Your task to perform on an android device: Search for a runner rug on Crate & Barrel Image 0: 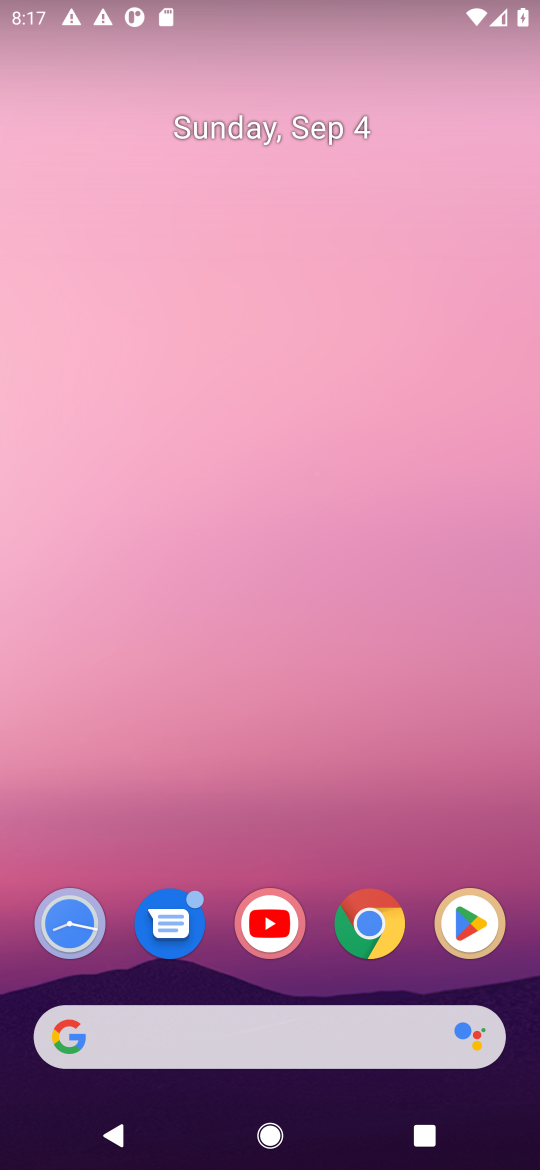
Step 0: click (361, 930)
Your task to perform on an android device: Search for a runner rug on Crate & Barrel Image 1: 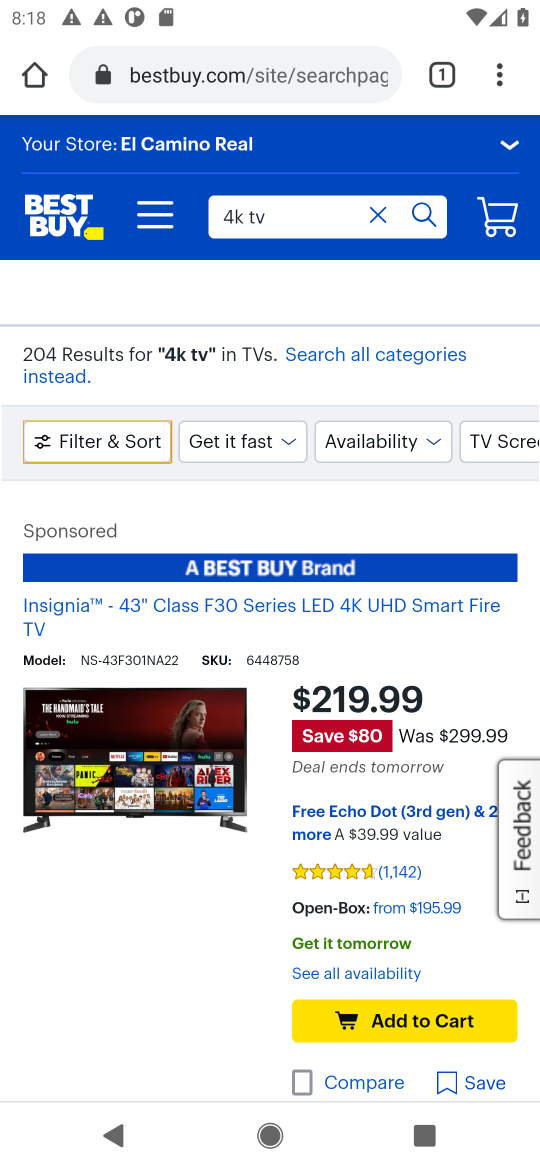
Step 1: click (328, 79)
Your task to perform on an android device: Search for a runner rug on Crate & Barrel Image 2: 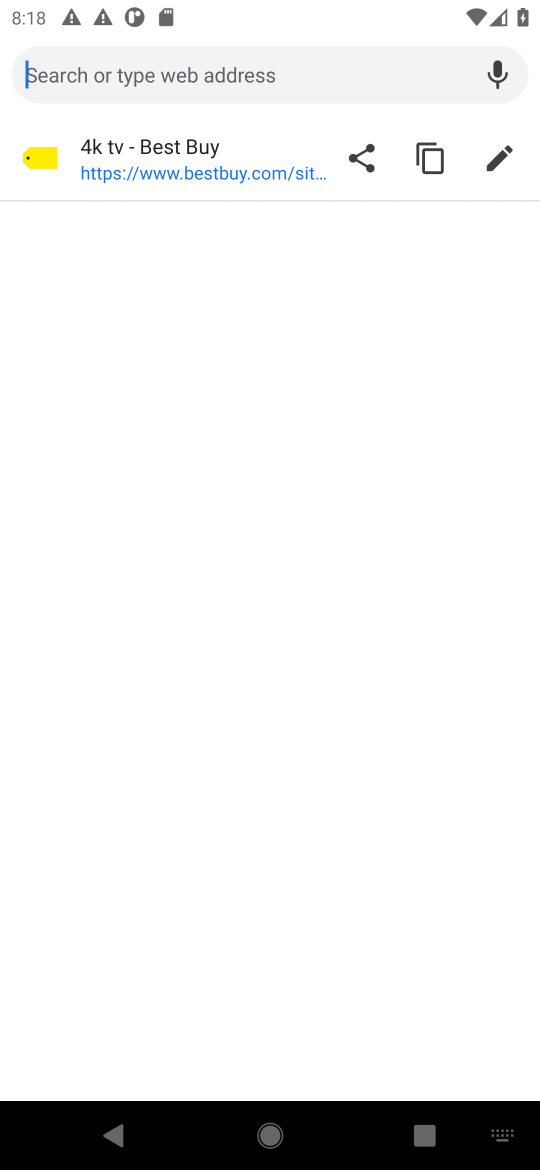
Step 2: type "crate & barrel"
Your task to perform on an android device: Search for a runner rug on Crate & Barrel Image 3: 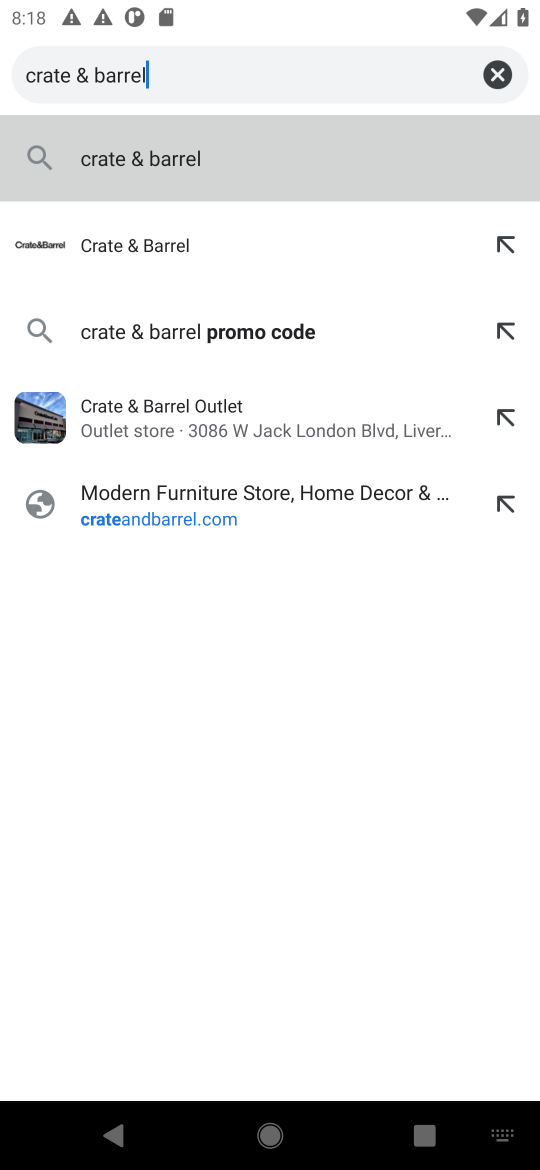
Step 3: click (402, 163)
Your task to perform on an android device: Search for a runner rug on Crate & Barrel Image 4: 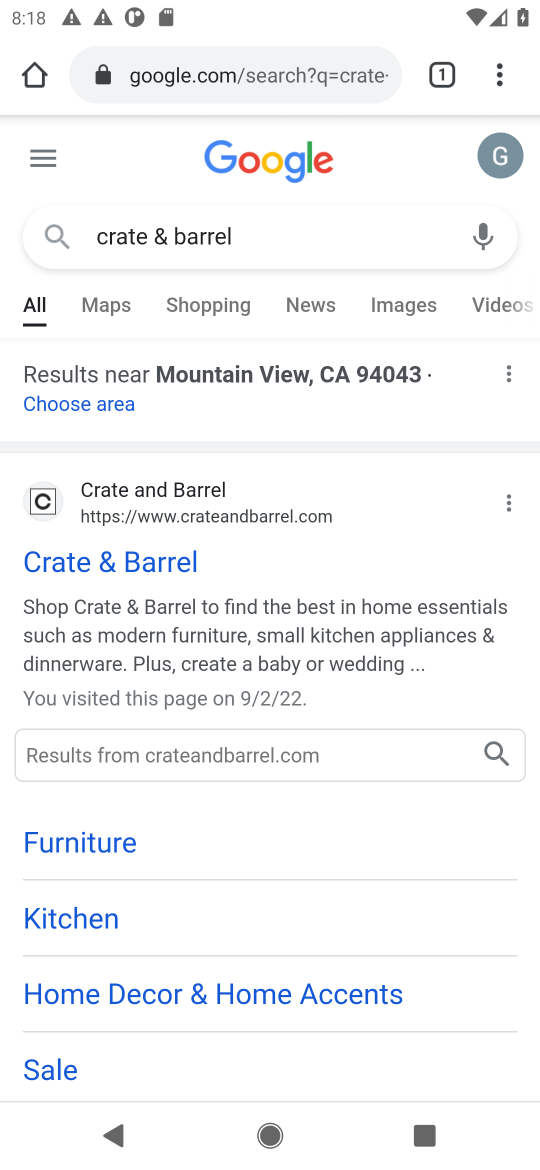
Step 4: click (99, 568)
Your task to perform on an android device: Search for a runner rug on Crate & Barrel Image 5: 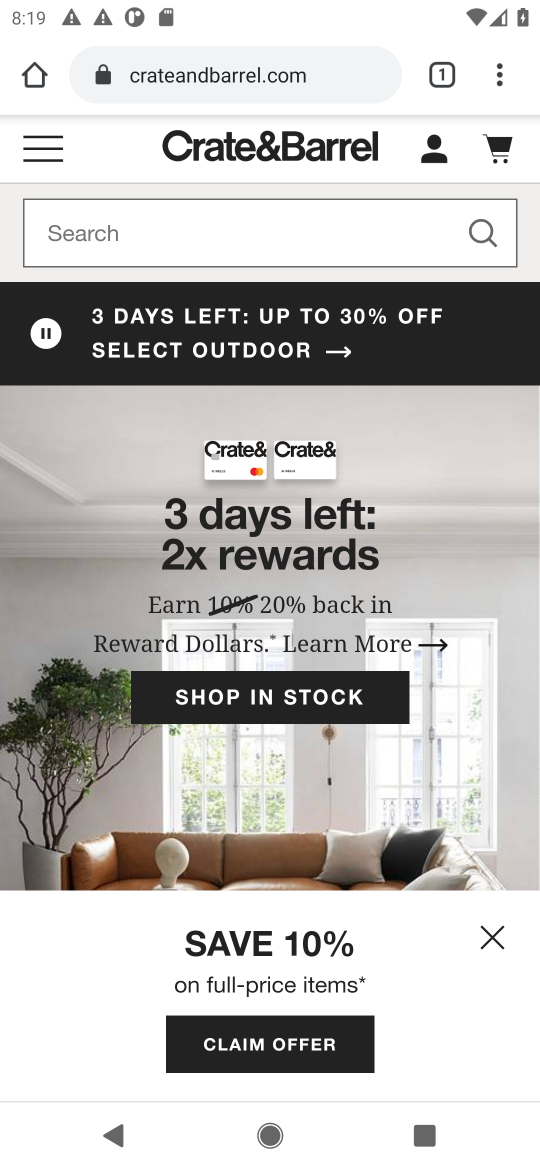
Step 5: click (339, 242)
Your task to perform on an android device: Search for a runner rug on Crate & Barrel Image 6: 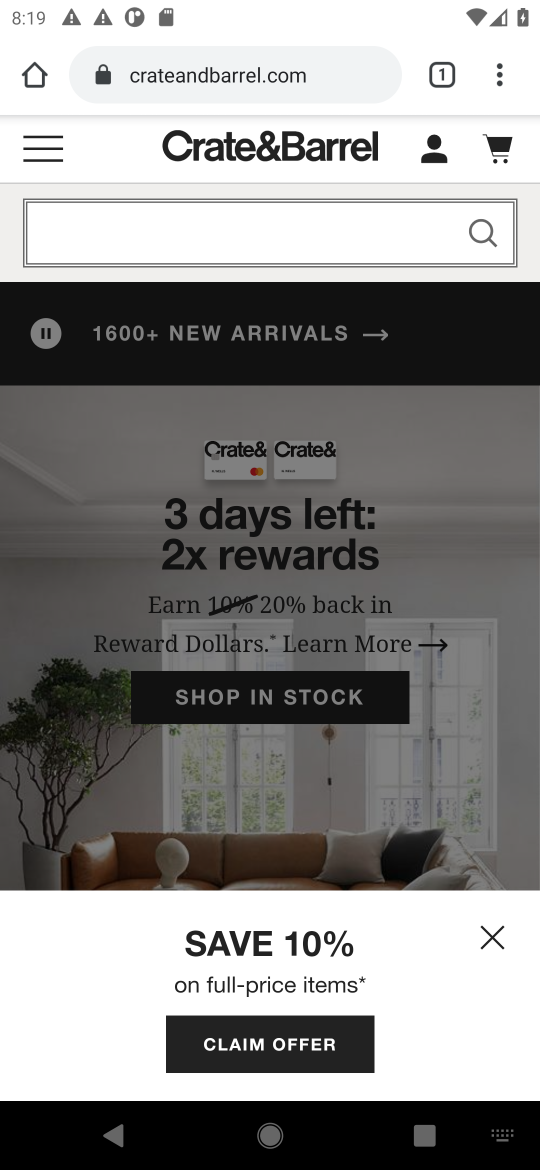
Step 6: type "runner rug"
Your task to perform on an android device: Search for a runner rug on Crate & Barrel Image 7: 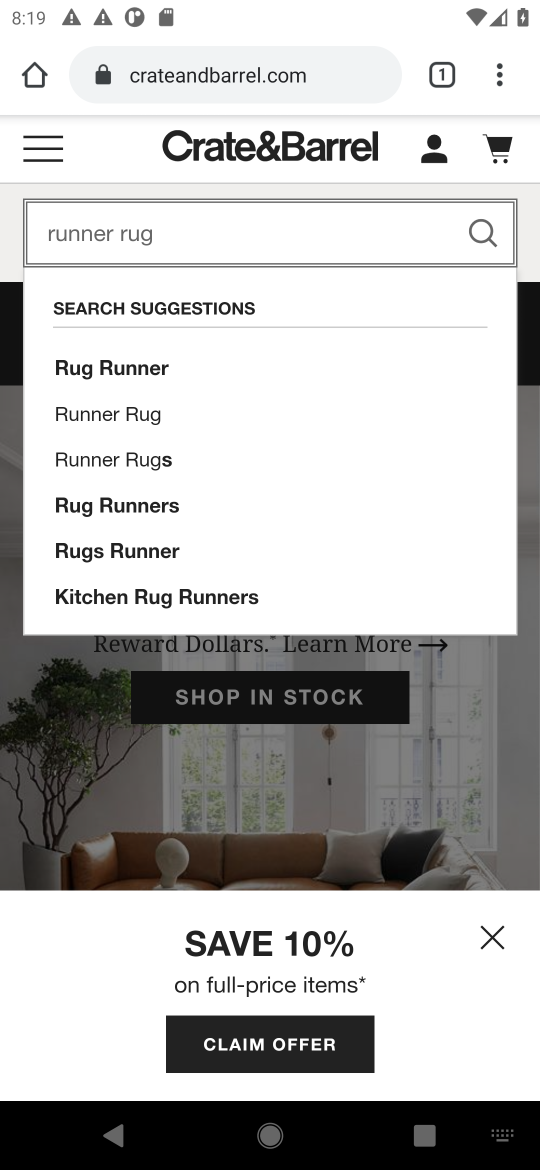
Step 7: click (488, 246)
Your task to perform on an android device: Search for a runner rug on Crate & Barrel Image 8: 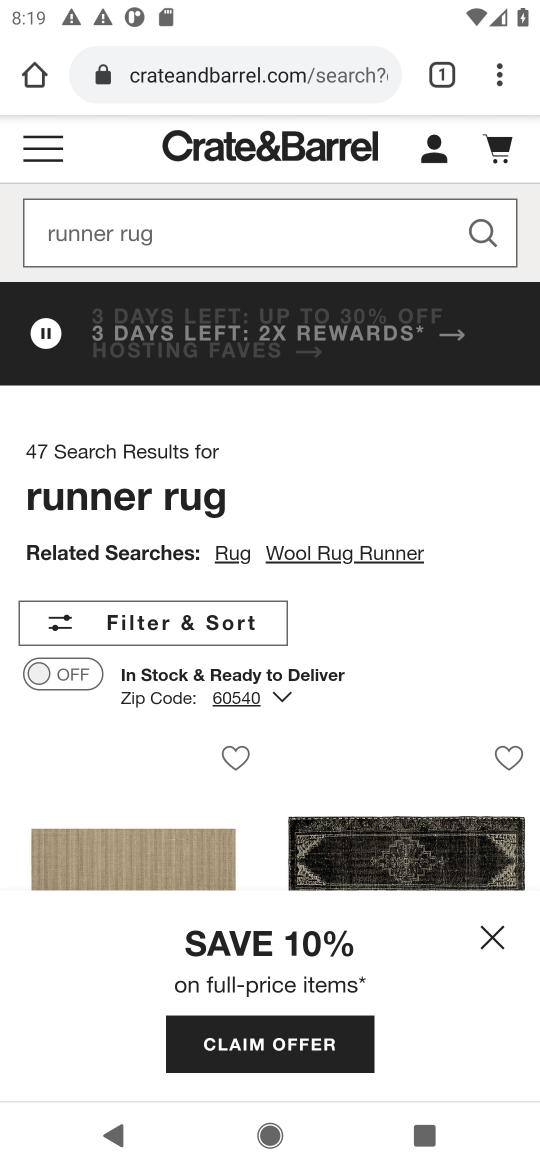
Step 8: click (386, 142)
Your task to perform on an android device: Search for a runner rug on Crate & Barrel Image 9: 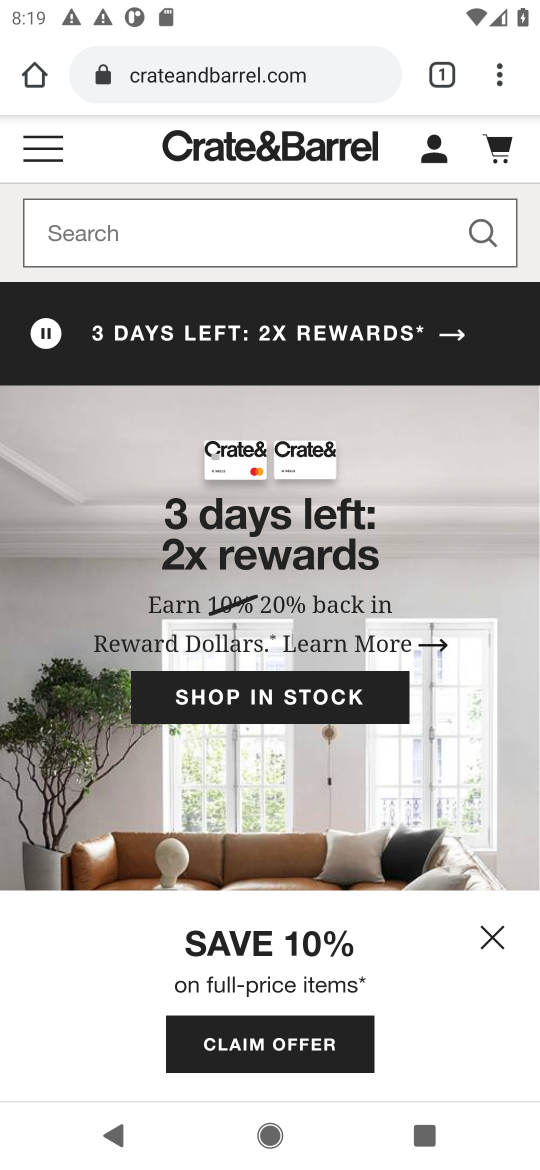
Step 9: click (483, 928)
Your task to perform on an android device: Search for a runner rug on Crate & Barrel Image 10: 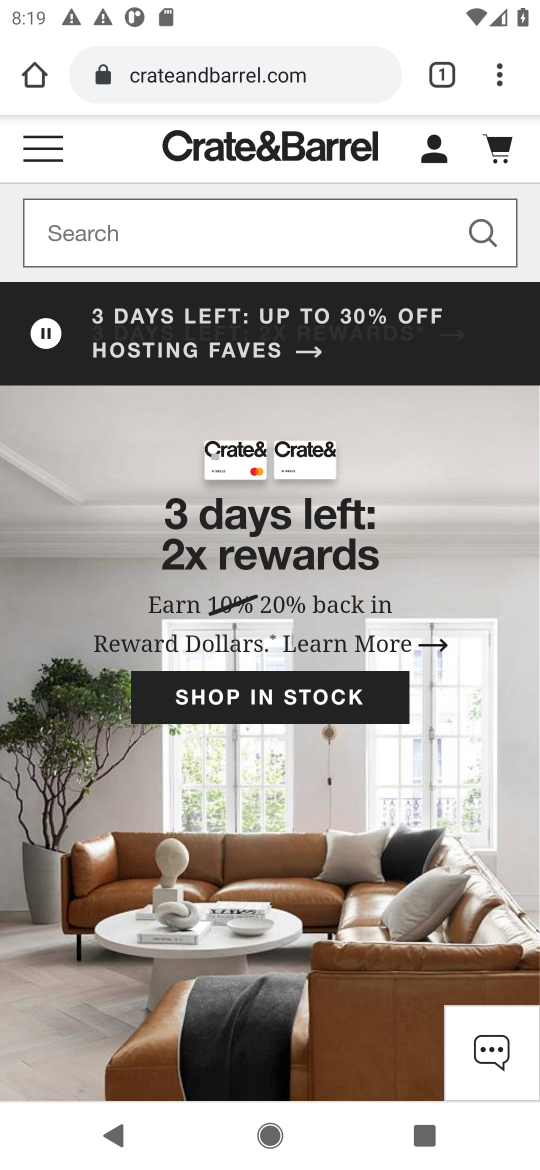
Step 10: task complete